Your task to perform on an android device: Open settings on Google Maps Image 0: 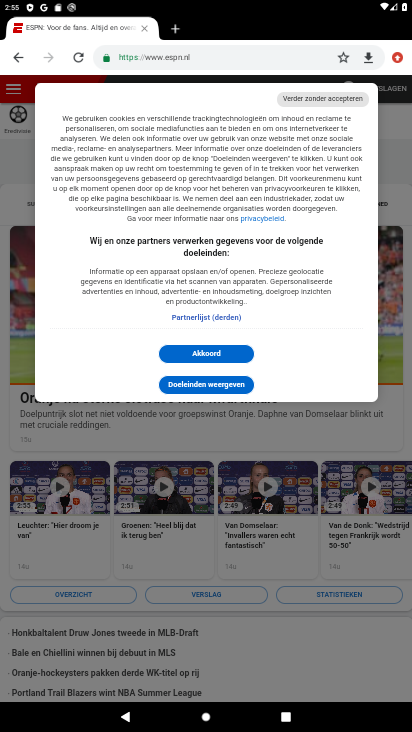
Step 0: press home button
Your task to perform on an android device: Open settings on Google Maps Image 1: 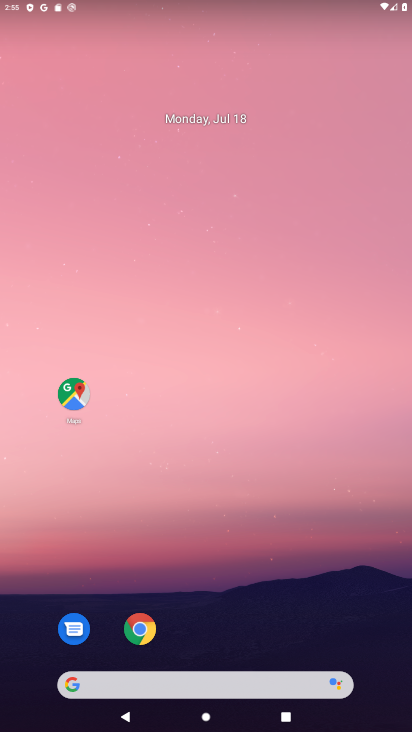
Step 1: click (77, 396)
Your task to perform on an android device: Open settings on Google Maps Image 2: 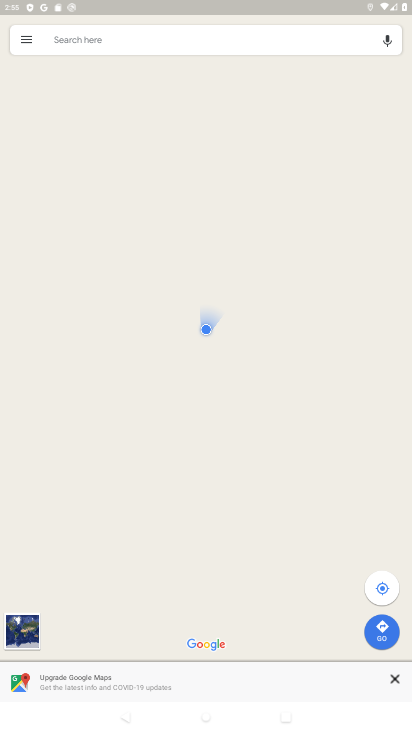
Step 2: click (20, 41)
Your task to perform on an android device: Open settings on Google Maps Image 3: 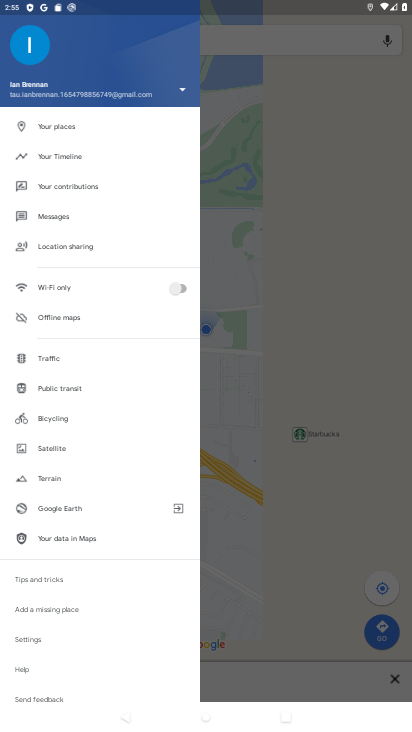
Step 3: click (27, 634)
Your task to perform on an android device: Open settings on Google Maps Image 4: 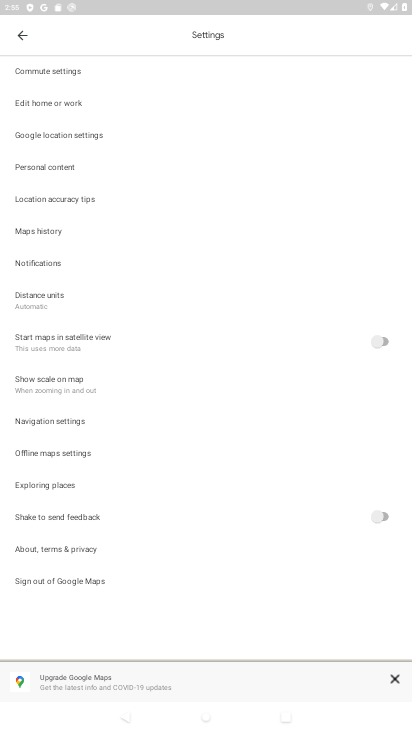
Step 4: task complete